Your task to perform on an android device: Show me the best rated coffee table on Ikea Image 0: 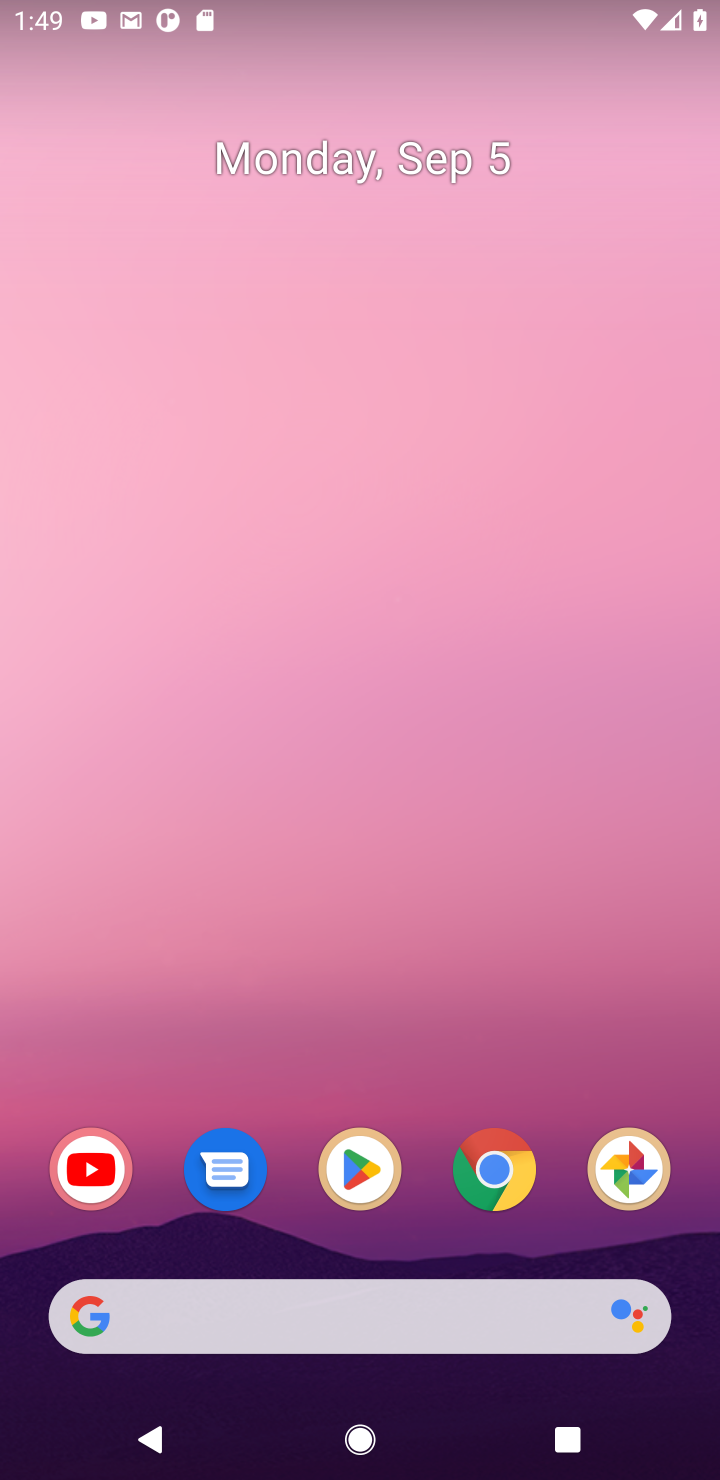
Step 0: click (193, 1177)
Your task to perform on an android device: Show me the best rated coffee table on Ikea Image 1: 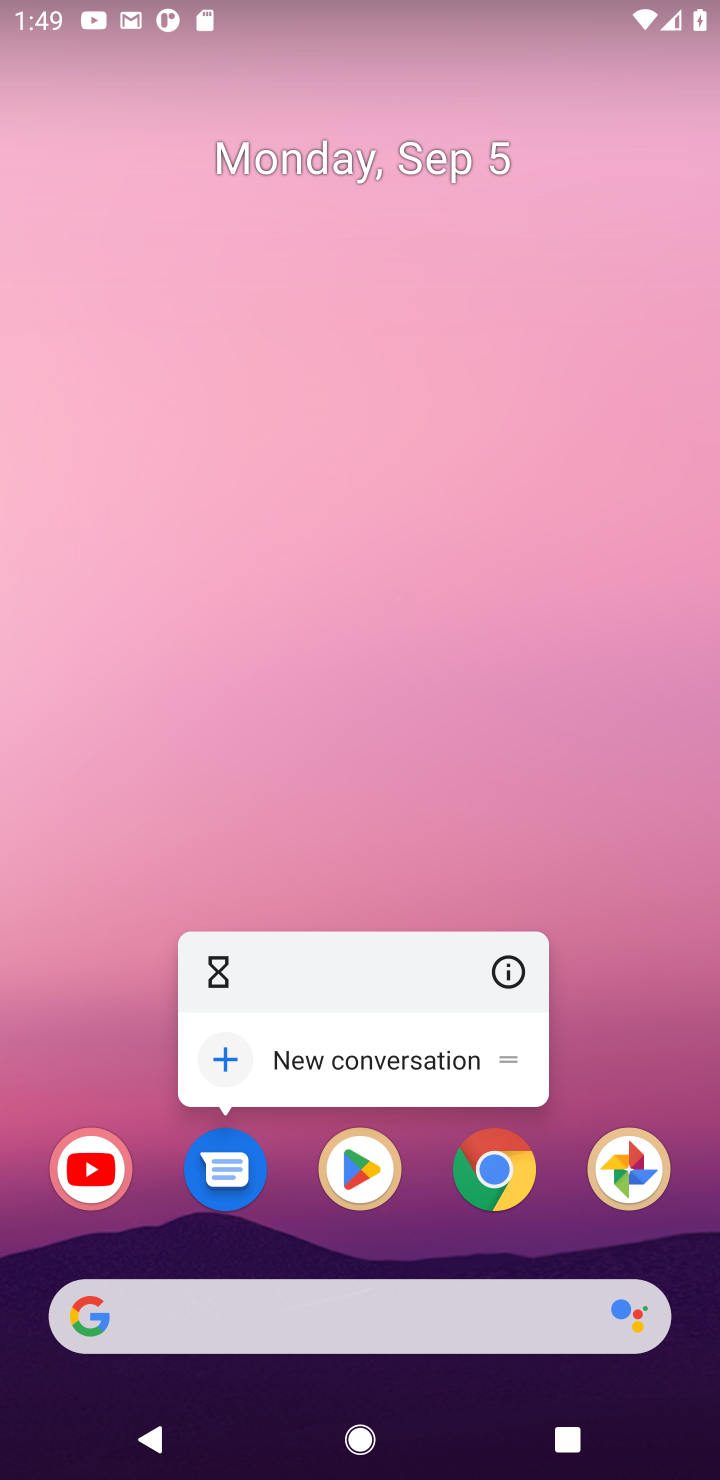
Step 1: task complete